Your task to perform on an android device: Turn on the flashlight Image 0: 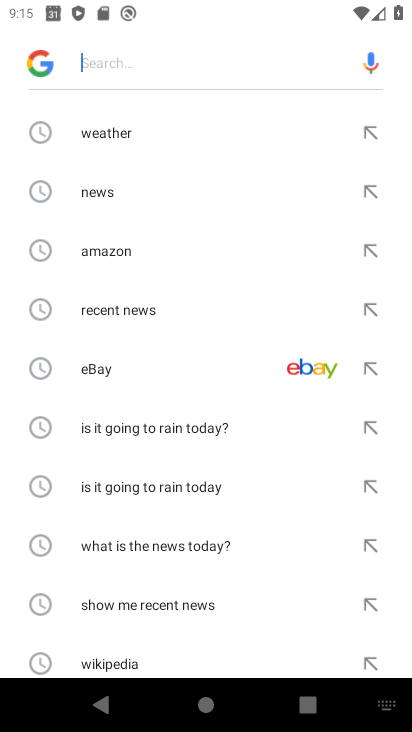
Step 0: press home button
Your task to perform on an android device: Turn on the flashlight Image 1: 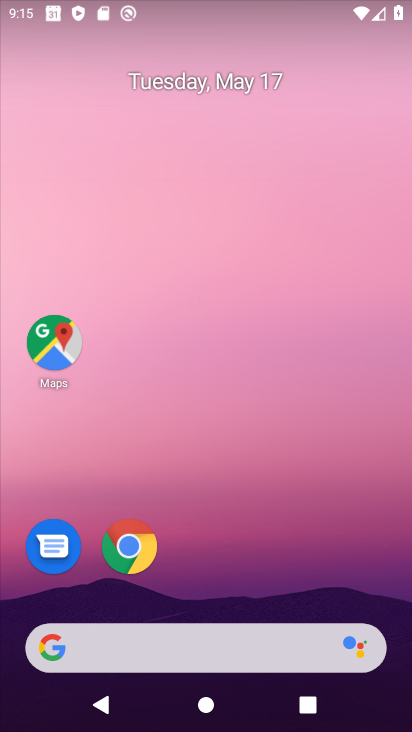
Step 1: drag from (231, 517) to (186, 136)
Your task to perform on an android device: Turn on the flashlight Image 2: 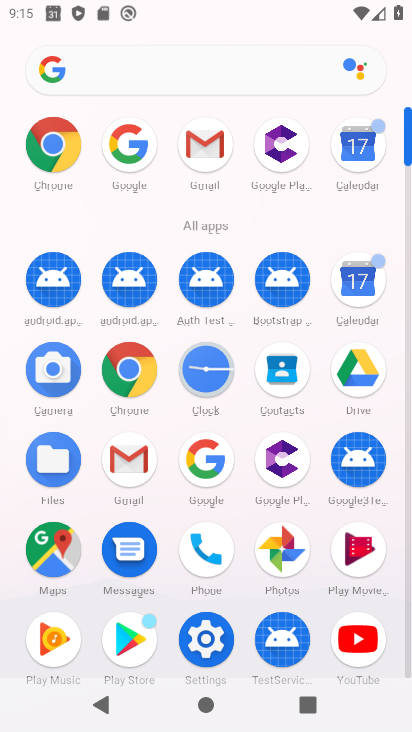
Step 2: click (210, 634)
Your task to perform on an android device: Turn on the flashlight Image 3: 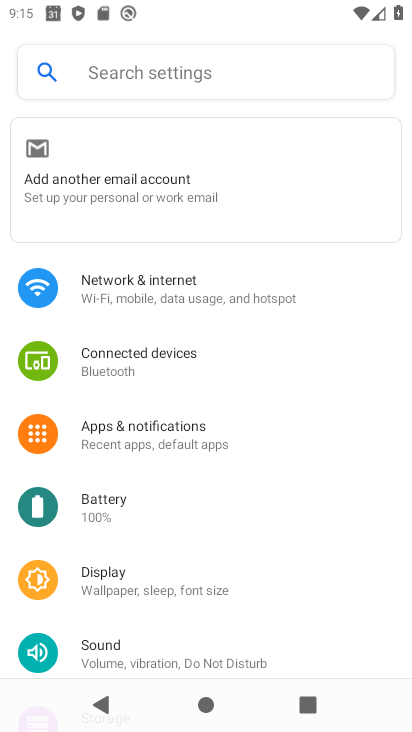
Step 3: click (145, 284)
Your task to perform on an android device: Turn on the flashlight Image 4: 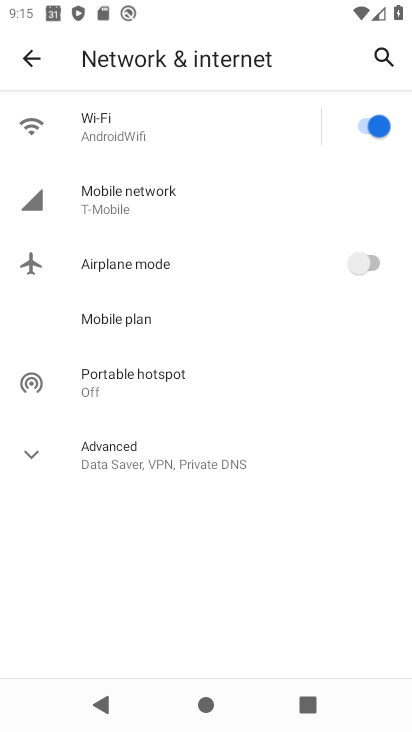
Step 4: drag from (189, 372) to (128, 157)
Your task to perform on an android device: Turn on the flashlight Image 5: 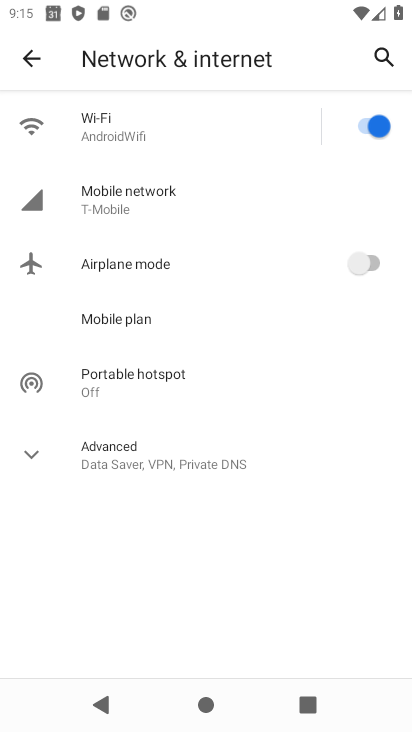
Step 5: click (29, 58)
Your task to perform on an android device: Turn on the flashlight Image 6: 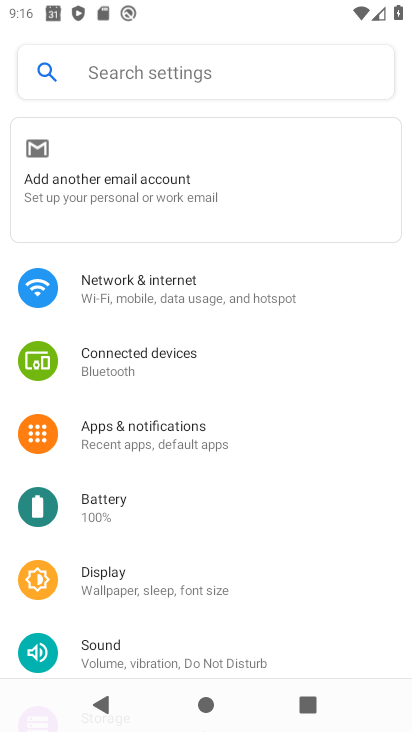
Step 6: task complete